Your task to perform on an android device: refresh tabs in the chrome app Image 0: 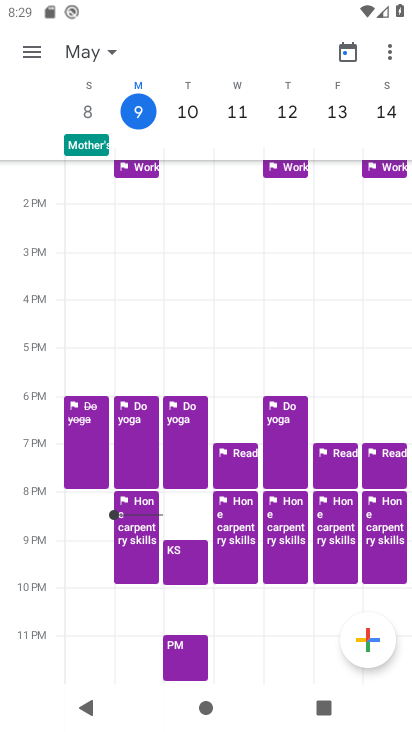
Step 0: press home button
Your task to perform on an android device: refresh tabs in the chrome app Image 1: 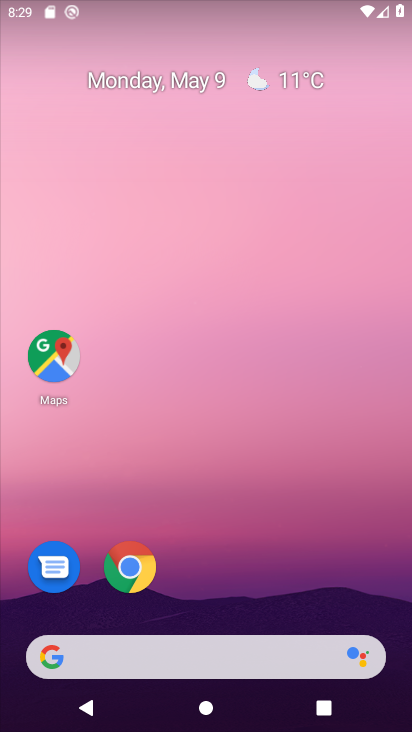
Step 1: drag from (310, 565) to (332, 47)
Your task to perform on an android device: refresh tabs in the chrome app Image 2: 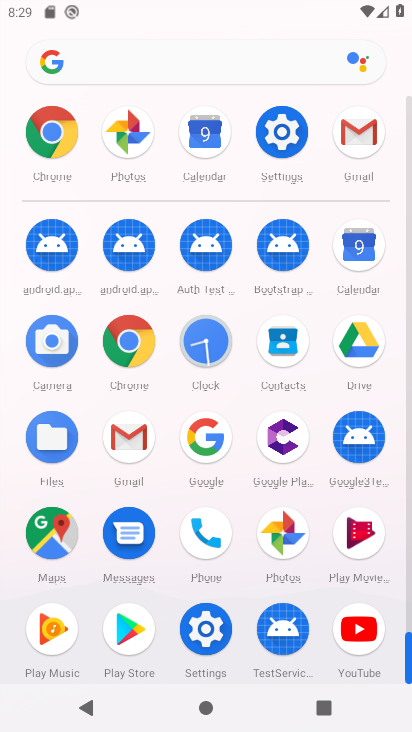
Step 2: click (57, 119)
Your task to perform on an android device: refresh tabs in the chrome app Image 3: 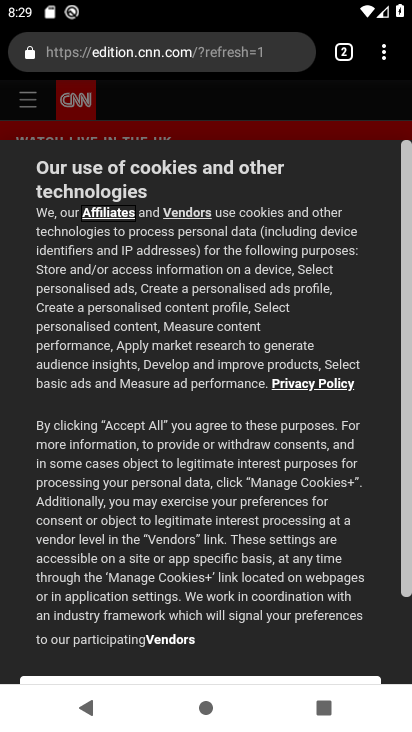
Step 3: click (386, 55)
Your task to perform on an android device: refresh tabs in the chrome app Image 4: 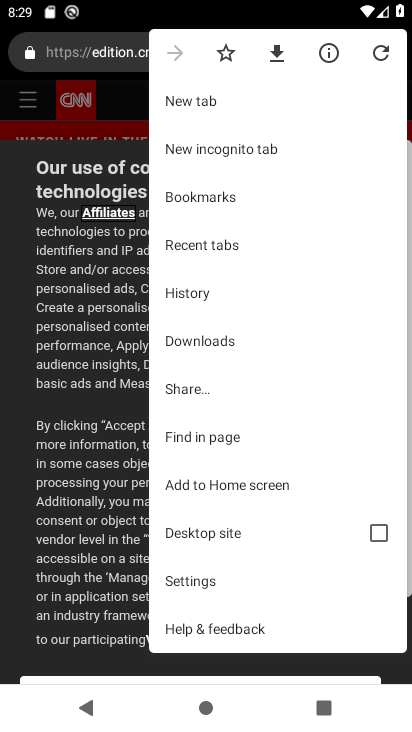
Step 4: click (378, 50)
Your task to perform on an android device: refresh tabs in the chrome app Image 5: 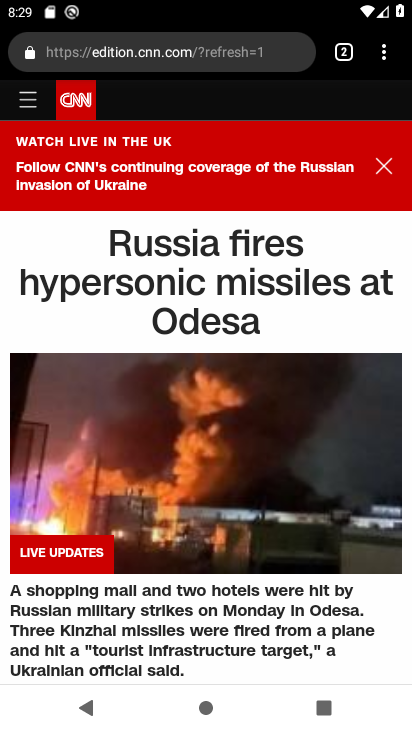
Step 5: task complete